Your task to perform on an android device: Turn off the flashlight Image 0: 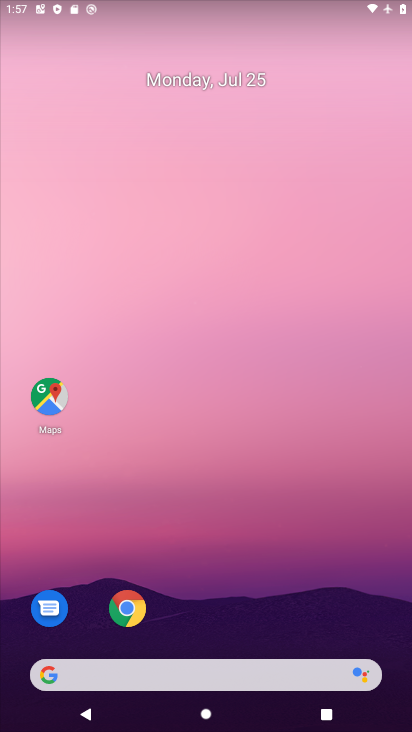
Step 0: drag from (301, 2) to (240, 381)
Your task to perform on an android device: Turn off the flashlight Image 1: 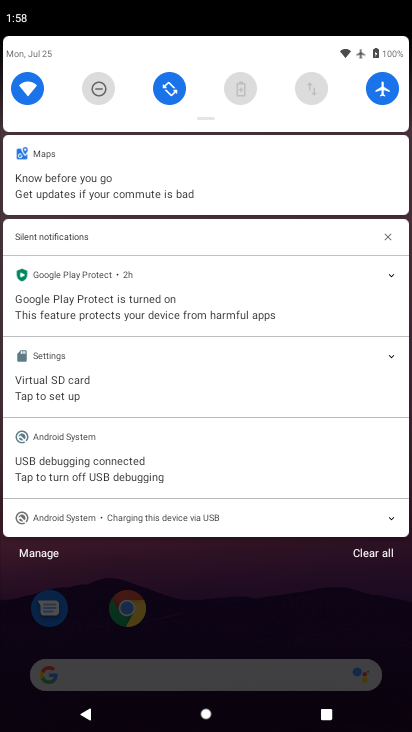
Step 1: task complete